Your task to perform on an android device: Search for Italian restaurants on Maps Image 0: 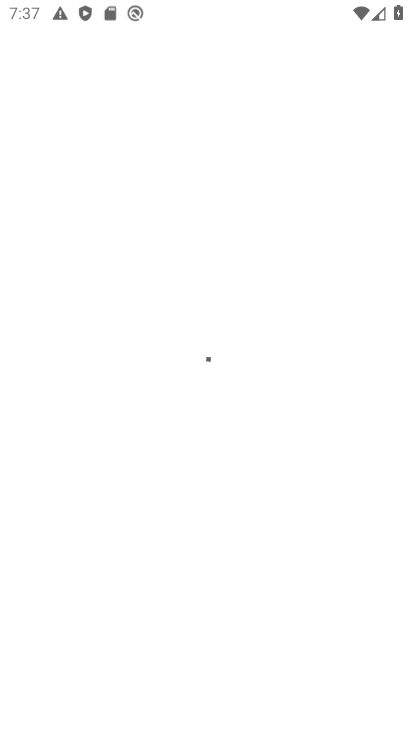
Step 0: click (303, 129)
Your task to perform on an android device: Search for Italian restaurants on Maps Image 1: 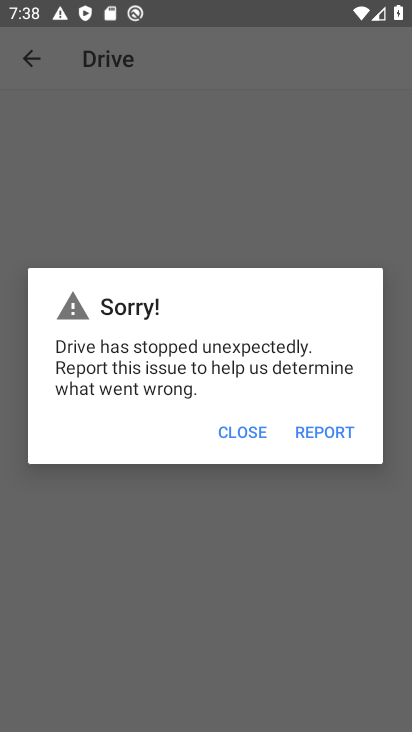
Step 1: press home button
Your task to perform on an android device: Search for Italian restaurants on Maps Image 2: 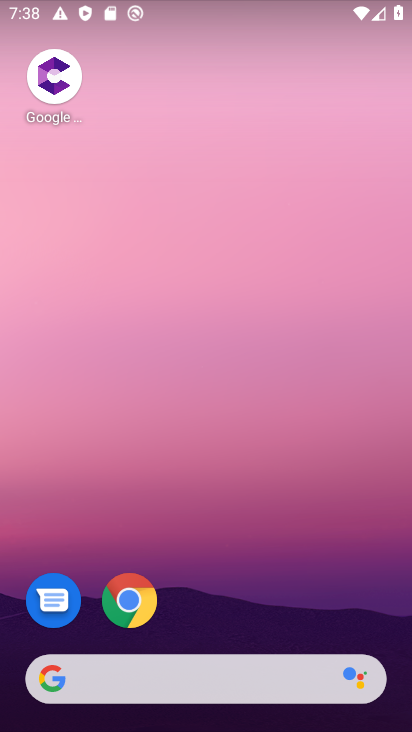
Step 2: drag from (175, 600) to (278, 67)
Your task to perform on an android device: Search for Italian restaurants on Maps Image 3: 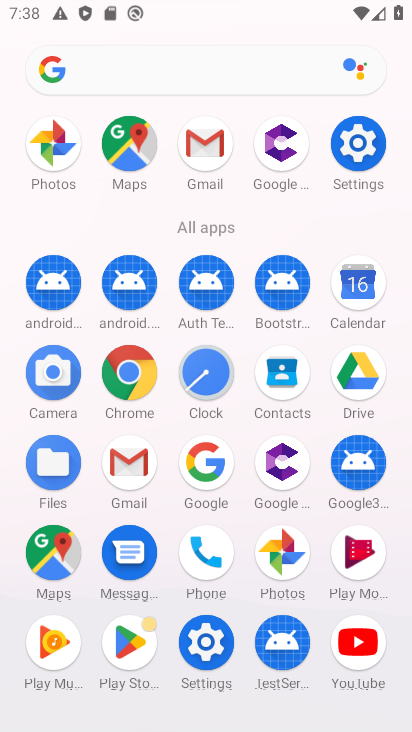
Step 3: click (125, 137)
Your task to perform on an android device: Search for Italian restaurants on Maps Image 4: 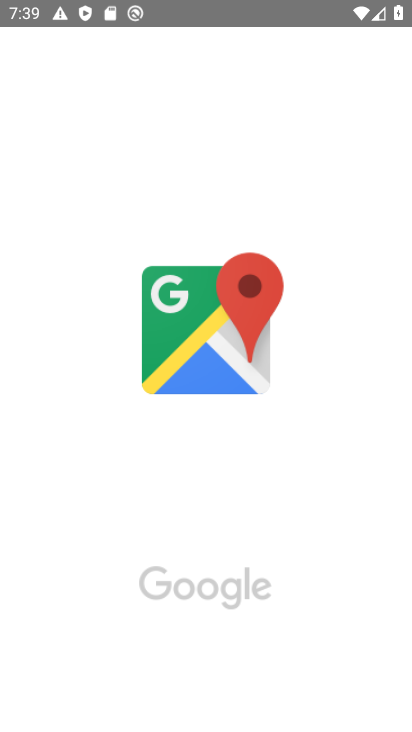
Step 4: task complete